Your task to perform on an android device: Go to Google maps Image 0: 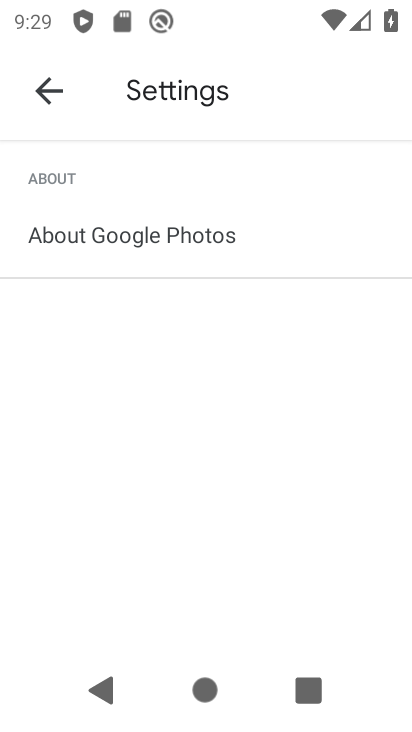
Step 0: press home button
Your task to perform on an android device: Go to Google maps Image 1: 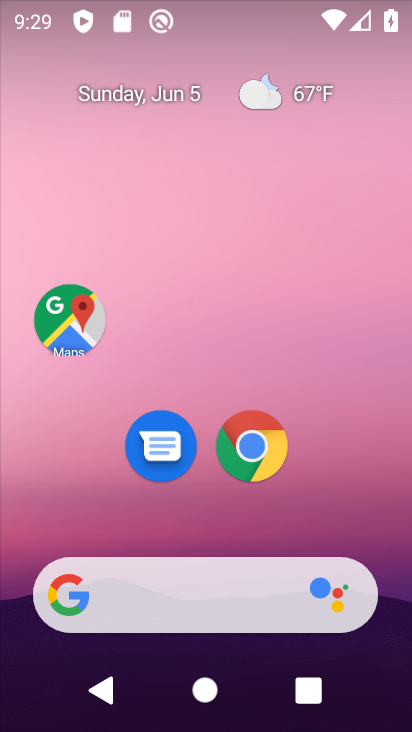
Step 1: click (72, 318)
Your task to perform on an android device: Go to Google maps Image 2: 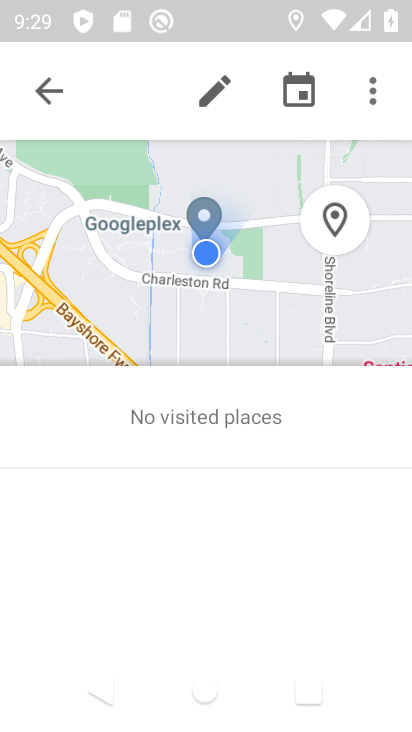
Step 2: task complete